Your task to perform on an android device: turn on sleep mode Image 0: 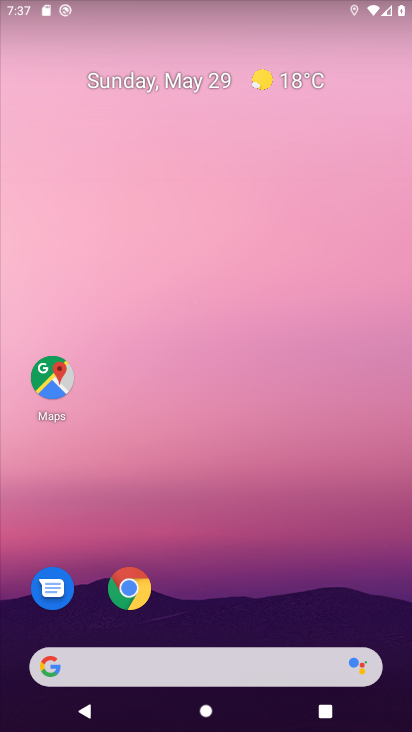
Step 0: drag from (255, 571) to (294, 231)
Your task to perform on an android device: turn on sleep mode Image 1: 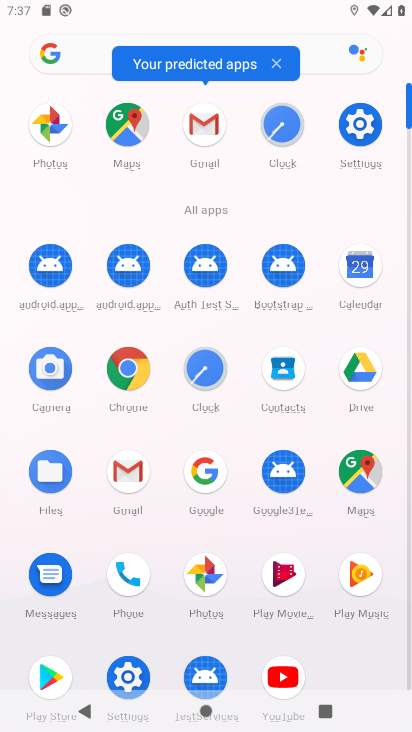
Step 1: click (364, 120)
Your task to perform on an android device: turn on sleep mode Image 2: 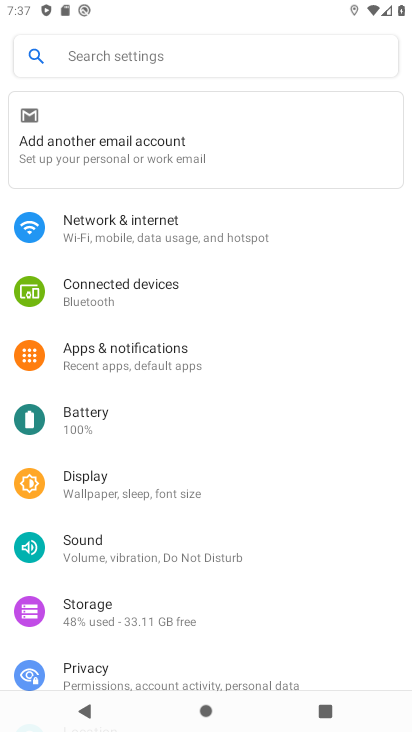
Step 2: click (114, 497)
Your task to perform on an android device: turn on sleep mode Image 3: 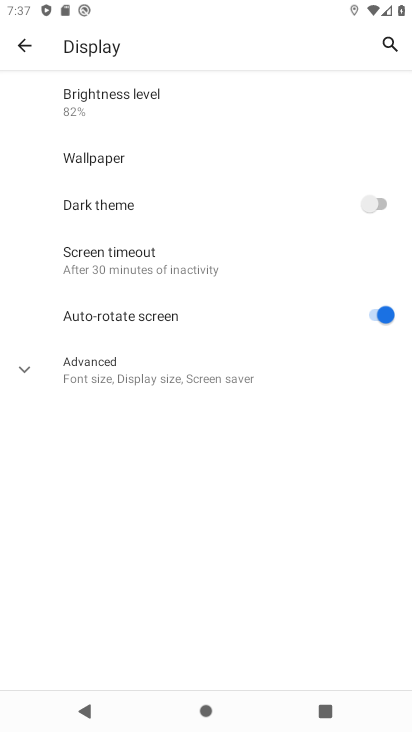
Step 3: click (151, 254)
Your task to perform on an android device: turn on sleep mode Image 4: 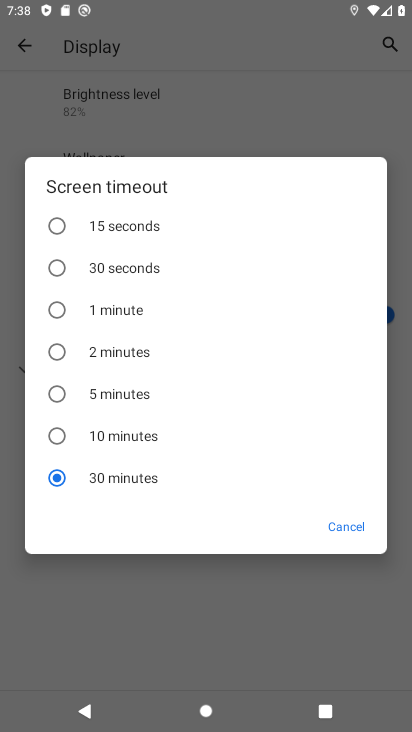
Step 4: task complete